Your task to perform on an android device: delete browsing data in the chrome app Image 0: 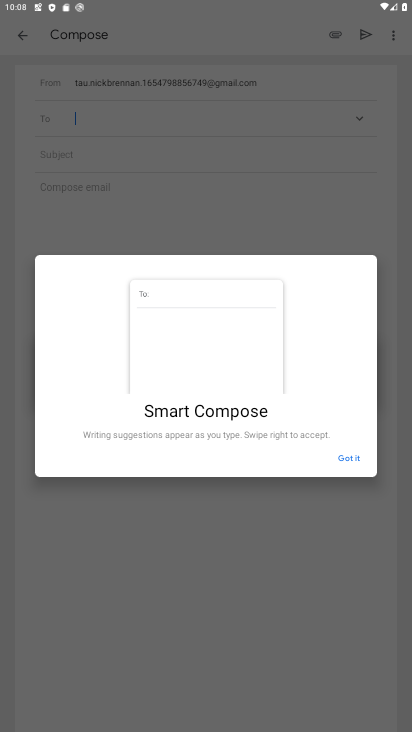
Step 0: press home button
Your task to perform on an android device: delete browsing data in the chrome app Image 1: 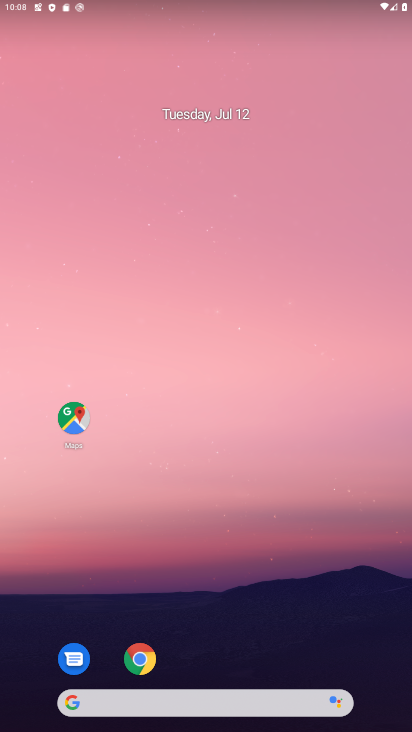
Step 1: click (136, 654)
Your task to perform on an android device: delete browsing data in the chrome app Image 2: 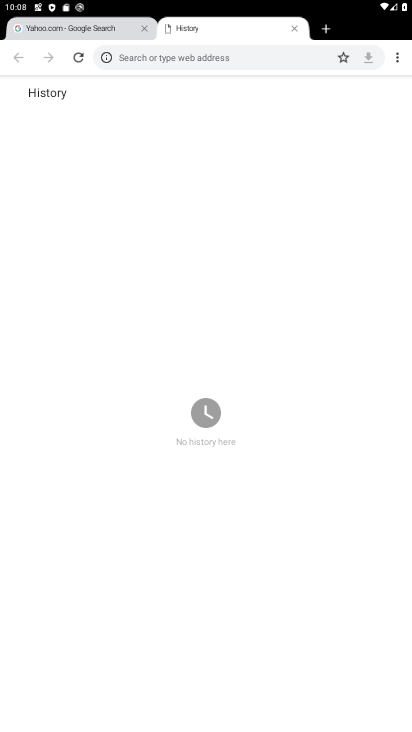
Step 2: press home button
Your task to perform on an android device: delete browsing data in the chrome app Image 3: 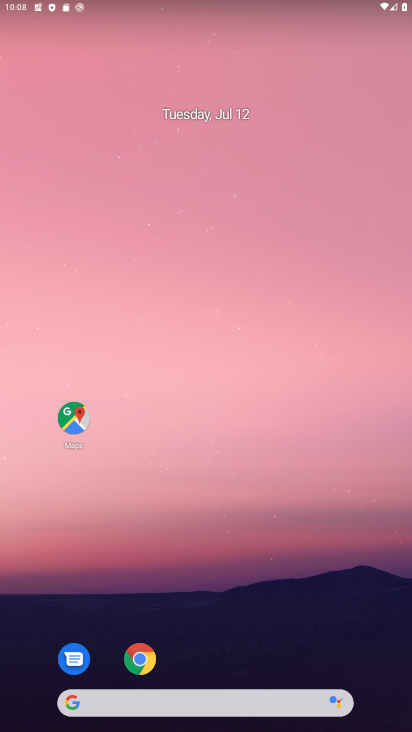
Step 3: click (133, 660)
Your task to perform on an android device: delete browsing data in the chrome app Image 4: 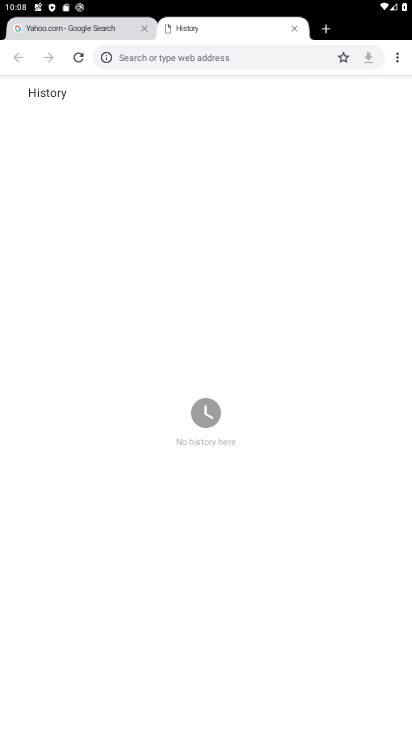
Step 4: task complete